Your task to perform on an android device: Go to notification settings Image 0: 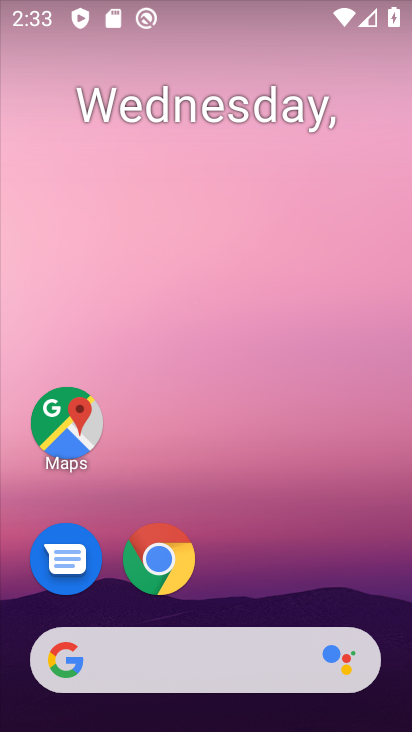
Step 0: drag from (216, 563) to (281, 95)
Your task to perform on an android device: Go to notification settings Image 1: 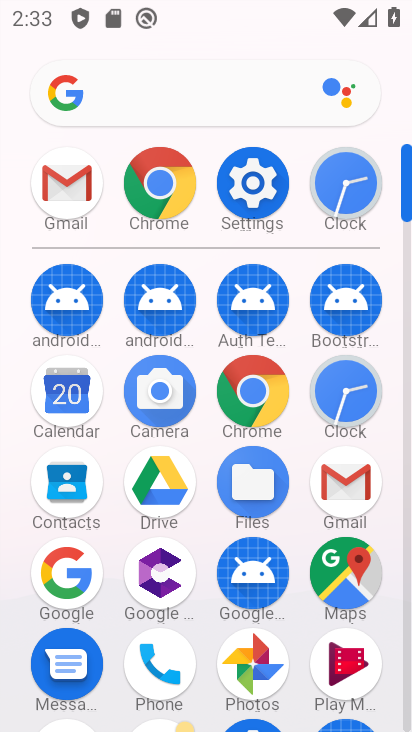
Step 1: click (254, 188)
Your task to perform on an android device: Go to notification settings Image 2: 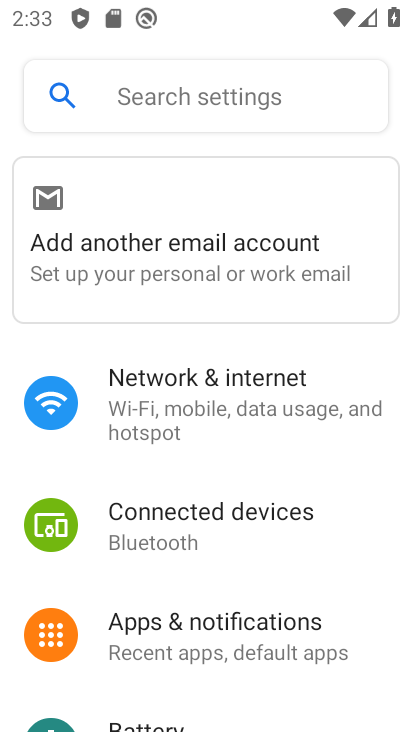
Step 2: click (222, 629)
Your task to perform on an android device: Go to notification settings Image 3: 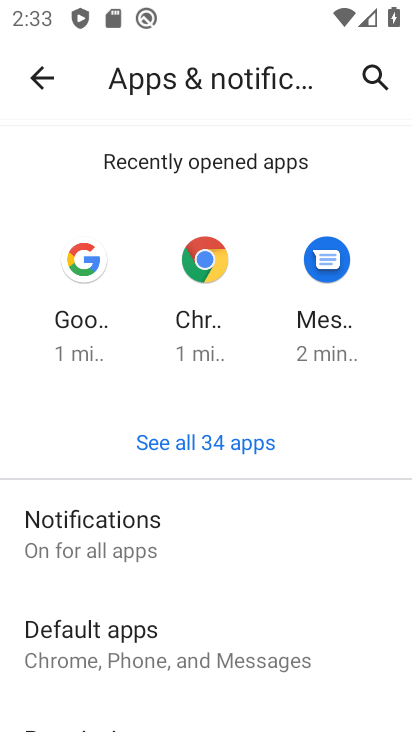
Step 3: task complete